Your task to perform on an android device: toggle translation in the chrome app Image 0: 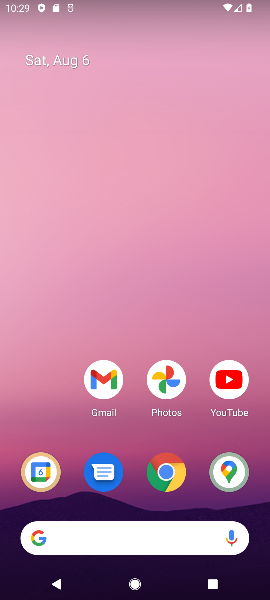
Step 0: click (29, 42)
Your task to perform on an android device: toggle translation in the chrome app Image 1: 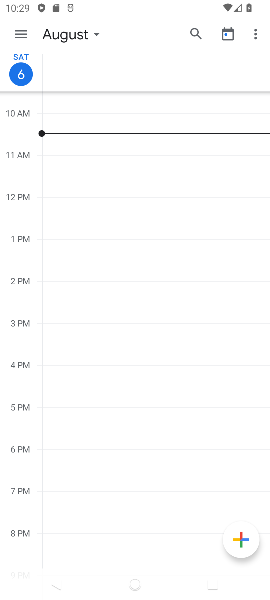
Step 1: press back button
Your task to perform on an android device: toggle translation in the chrome app Image 2: 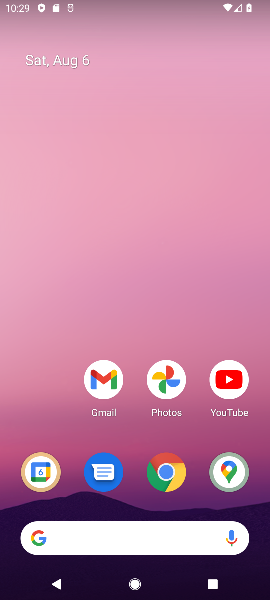
Step 2: press back button
Your task to perform on an android device: toggle translation in the chrome app Image 3: 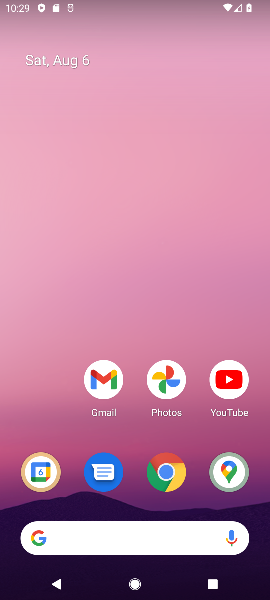
Step 3: drag from (153, 574) to (96, 190)
Your task to perform on an android device: toggle translation in the chrome app Image 4: 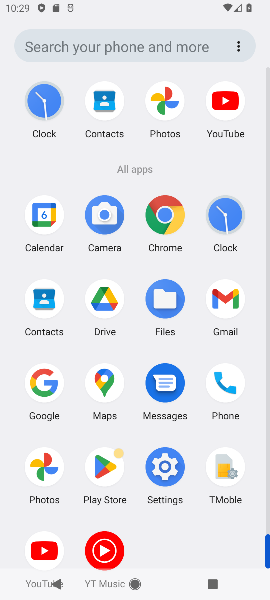
Step 4: click (162, 209)
Your task to perform on an android device: toggle translation in the chrome app Image 5: 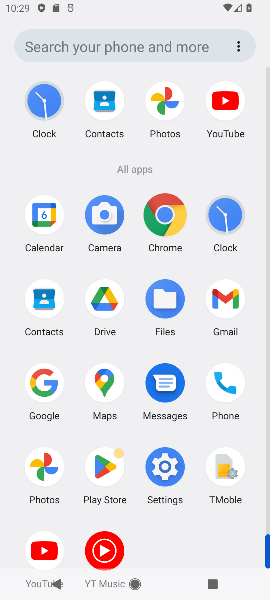
Step 5: click (163, 212)
Your task to perform on an android device: toggle translation in the chrome app Image 6: 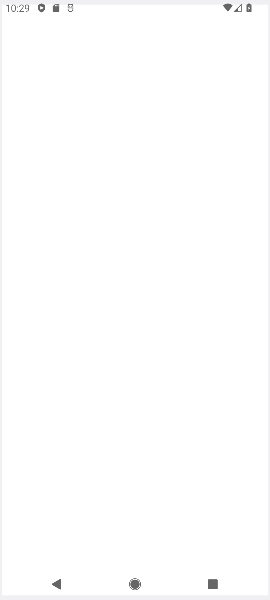
Step 6: click (163, 211)
Your task to perform on an android device: toggle translation in the chrome app Image 7: 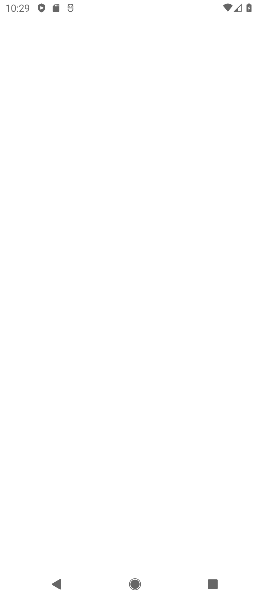
Step 7: click (163, 211)
Your task to perform on an android device: toggle translation in the chrome app Image 8: 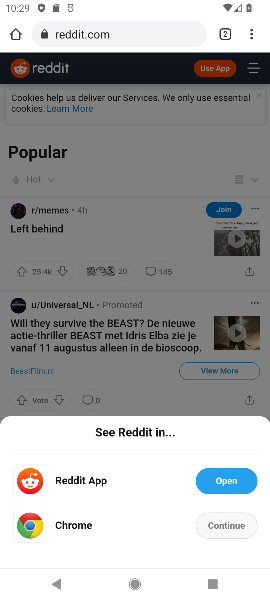
Step 8: drag from (256, 30) to (152, 480)
Your task to perform on an android device: toggle translation in the chrome app Image 9: 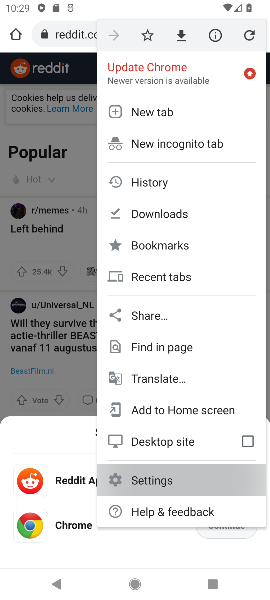
Step 9: click (150, 479)
Your task to perform on an android device: toggle translation in the chrome app Image 10: 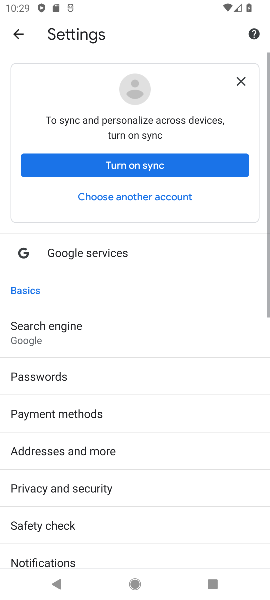
Step 10: drag from (95, 417) to (29, 50)
Your task to perform on an android device: toggle translation in the chrome app Image 11: 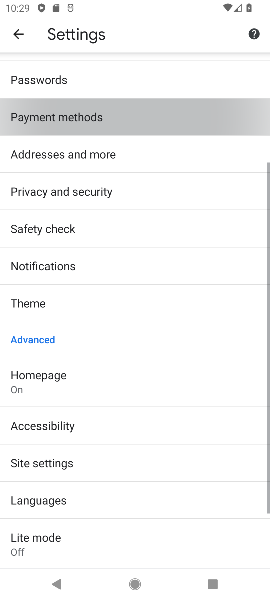
Step 11: drag from (120, 362) to (111, 181)
Your task to perform on an android device: toggle translation in the chrome app Image 12: 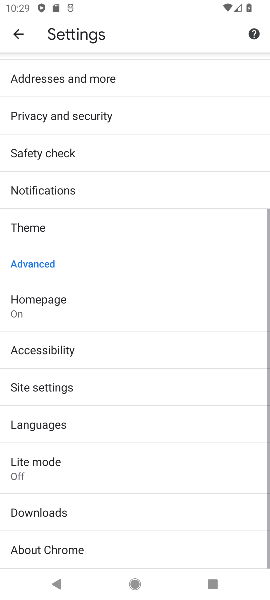
Step 12: drag from (139, 347) to (97, 117)
Your task to perform on an android device: toggle translation in the chrome app Image 13: 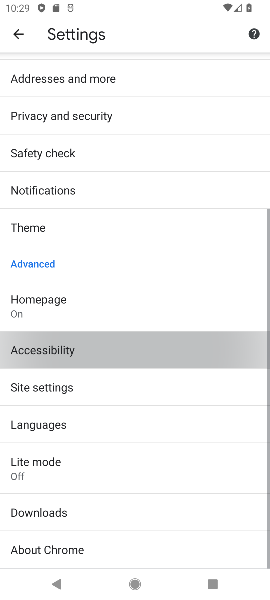
Step 13: drag from (95, 315) to (82, 254)
Your task to perform on an android device: toggle translation in the chrome app Image 14: 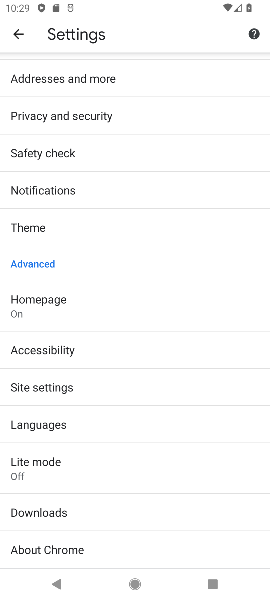
Step 14: click (138, 435)
Your task to perform on an android device: toggle translation in the chrome app Image 15: 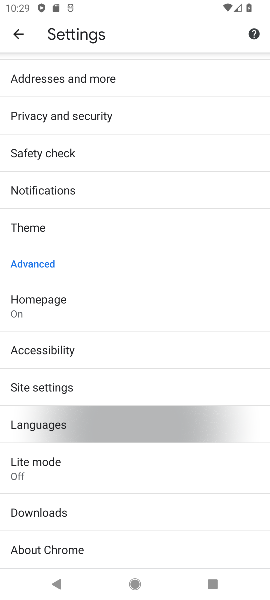
Step 15: click (139, 435)
Your task to perform on an android device: toggle translation in the chrome app Image 16: 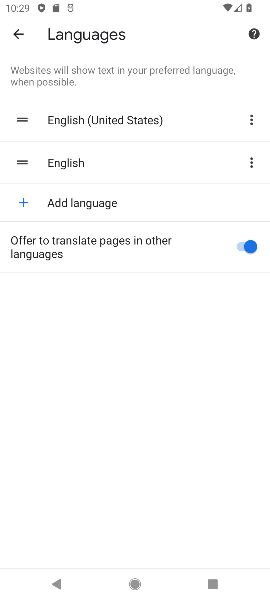
Step 16: click (243, 239)
Your task to perform on an android device: toggle translation in the chrome app Image 17: 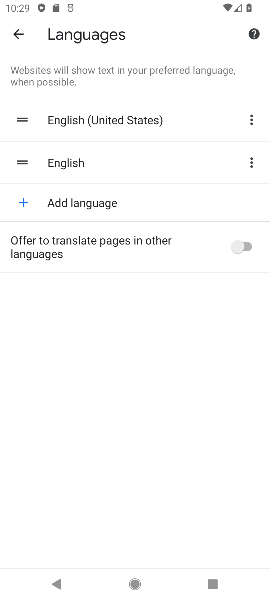
Step 17: task complete